Your task to perform on an android device: turn off picture-in-picture Image 0: 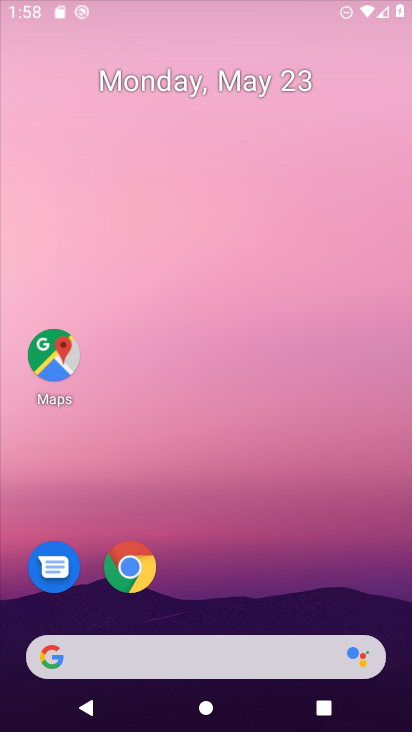
Step 0: press home button
Your task to perform on an android device: turn off picture-in-picture Image 1: 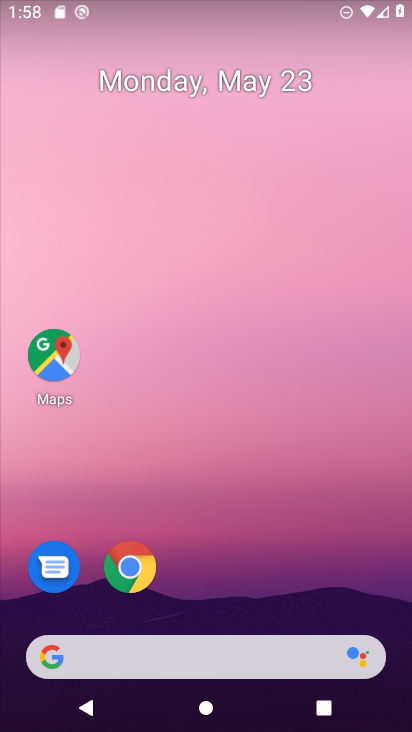
Step 1: click (134, 579)
Your task to perform on an android device: turn off picture-in-picture Image 2: 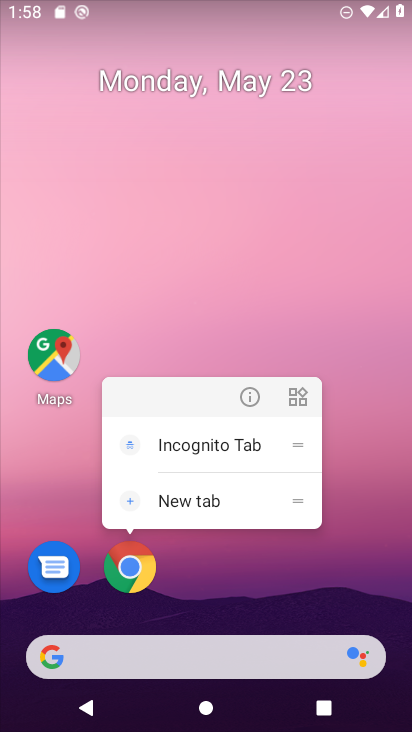
Step 2: click (245, 398)
Your task to perform on an android device: turn off picture-in-picture Image 3: 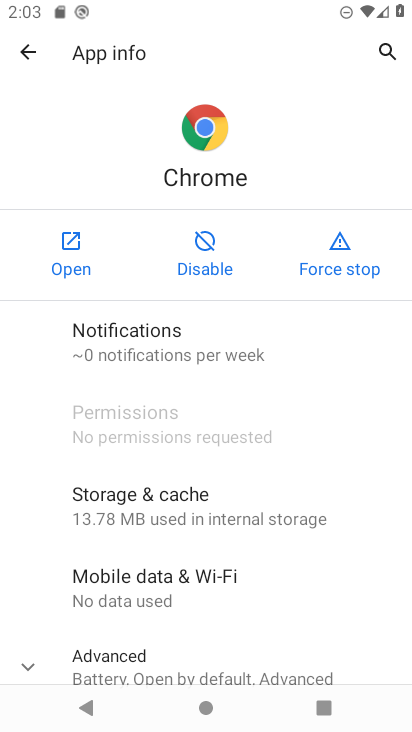
Step 3: drag from (161, 594) to (220, 148)
Your task to perform on an android device: turn off picture-in-picture Image 4: 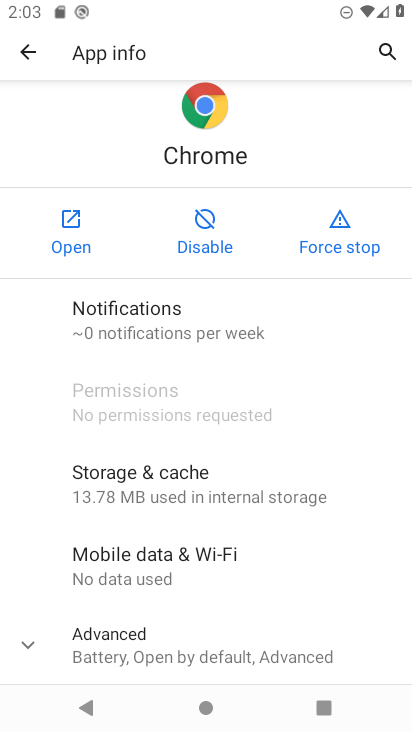
Step 4: drag from (167, 591) to (224, 402)
Your task to perform on an android device: turn off picture-in-picture Image 5: 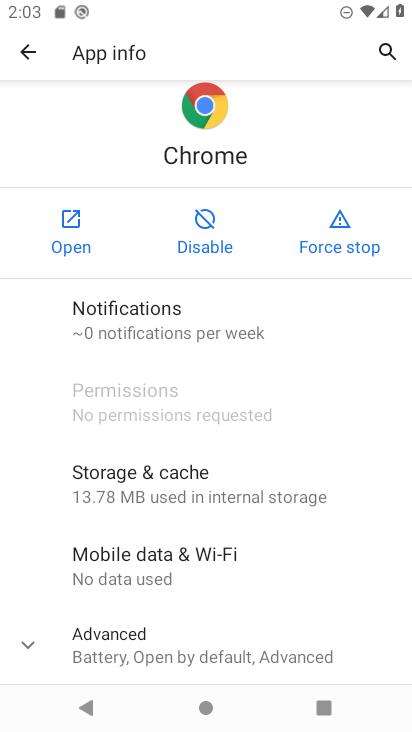
Step 5: click (202, 656)
Your task to perform on an android device: turn off picture-in-picture Image 6: 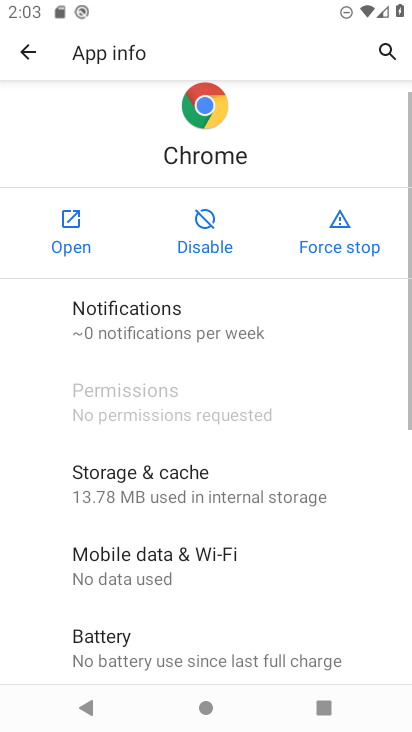
Step 6: task complete